Your task to perform on an android device: turn pop-ups off in chrome Image 0: 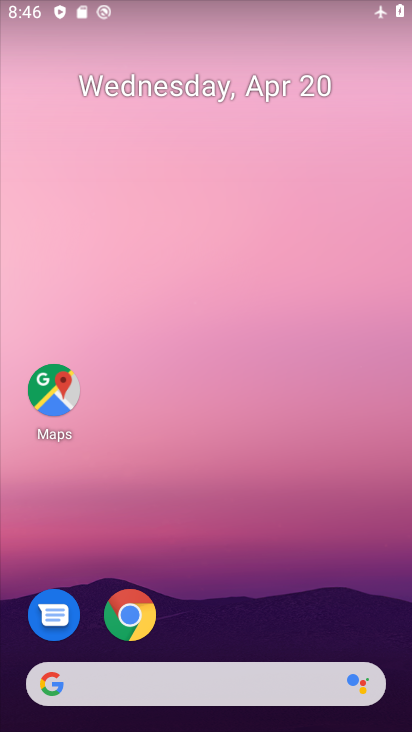
Step 0: click (129, 614)
Your task to perform on an android device: turn pop-ups off in chrome Image 1: 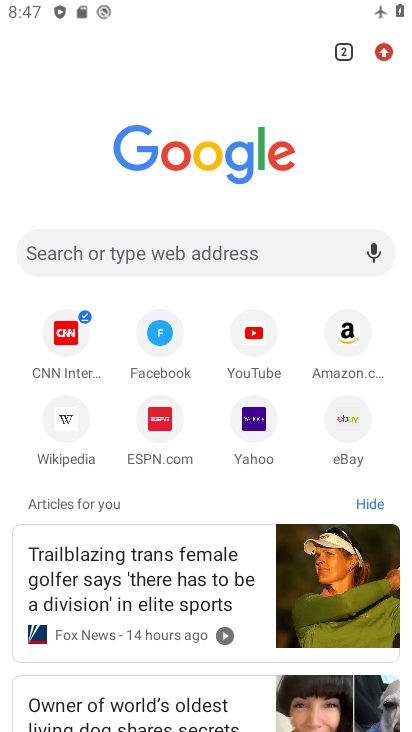
Step 1: click (387, 48)
Your task to perform on an android device: turn pop-ups off in chrome Image 2: 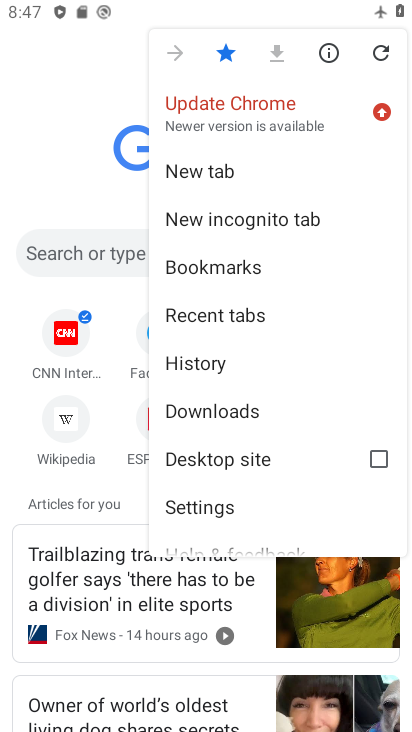
Step 2: click (206, 507)
Your task to perform on an android device: turn pop-ups off in chrome Image 3: 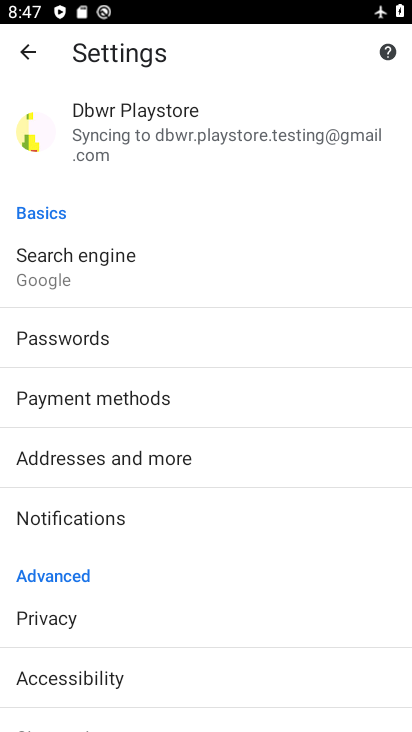
Step 3: drag from (172, 547) to (183, 408)
Your task to perform on an android device: turn pop-ups off in chrome Image 4: 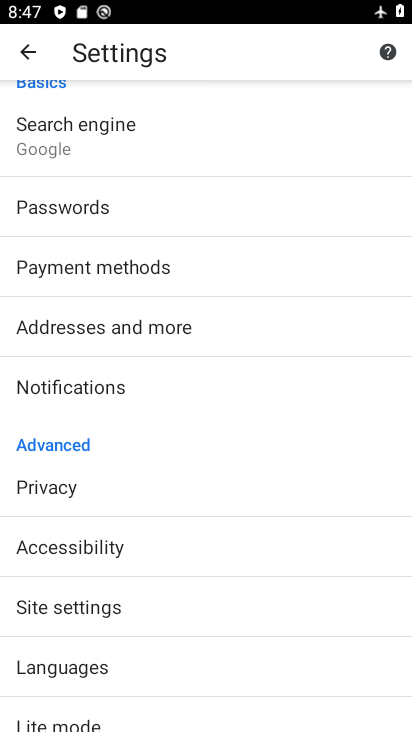
Step 4: drag from (163, 469) to (199, 367)
Your task to perform on an android device: turn pop-ups off in chrome Image 5: 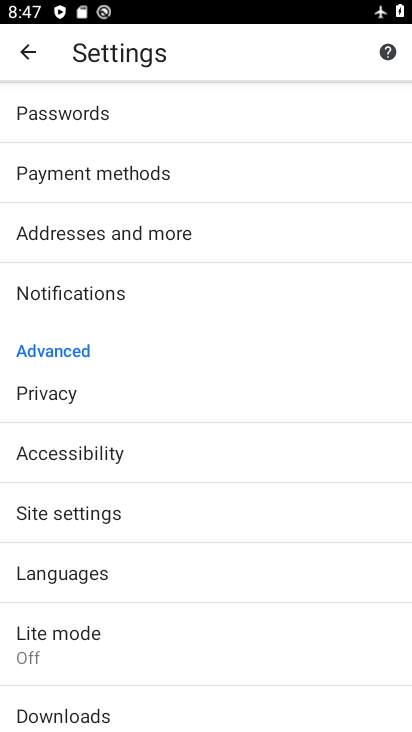
Step 5: click (94, 516)
Your task to perform on an android device: turn pop-ups off in chrome Image 6: 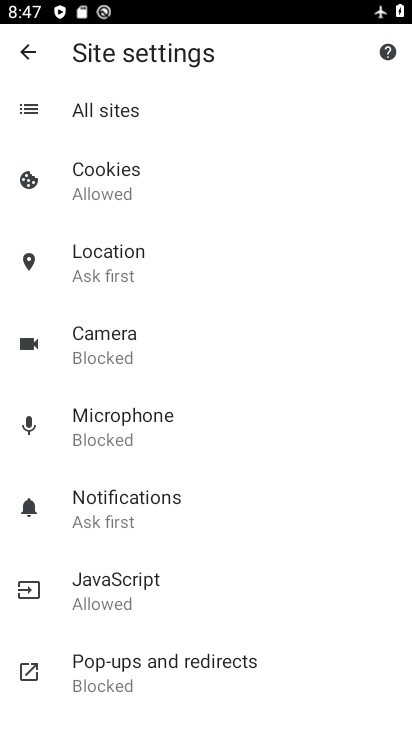
Step 6: click (190, 661)
Your task to perform on an android device: turn pop-ups off in chrome Image 7: 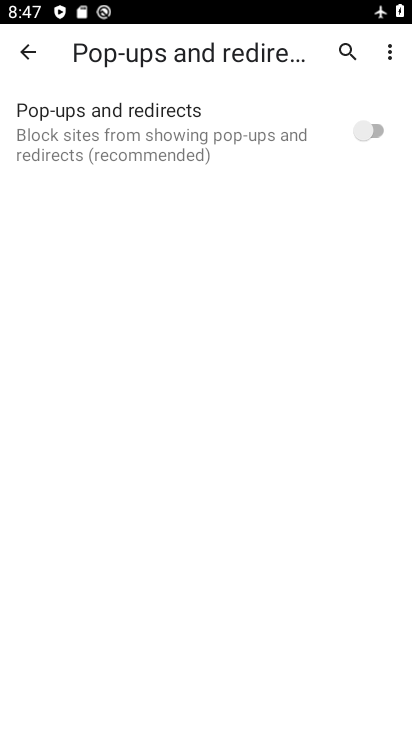
Step 7: task complete